Your task to perform on an android device: toggle improve location accuracy Image 0: 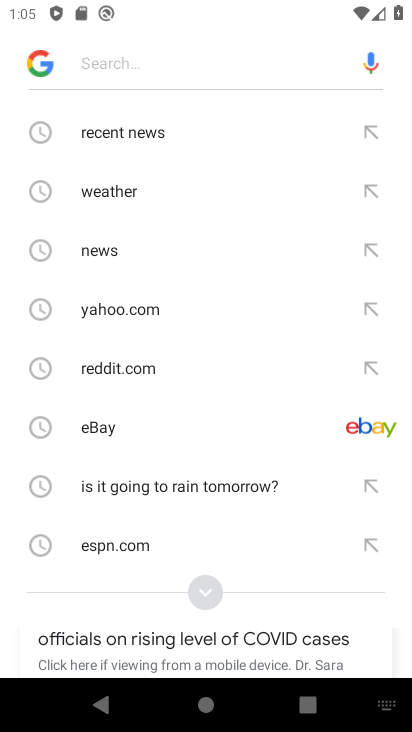
Step 0: press home button
Your task to perform on an android device: toggle improve location accuracy Image 1: 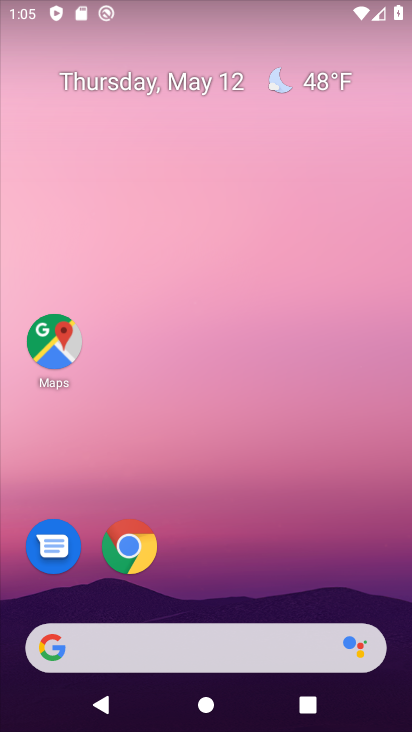
Step 1: drag from (170, 642) to (316, 67)
Your task to perform on an android device: toggle improve location accuracy Image 2: 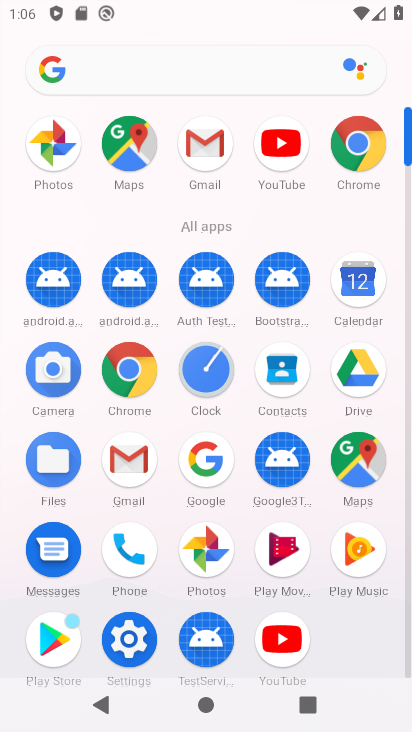
Step 2: click (135, 640)
Your task to perform on an android device: toggle improve location accuracy Image 3: 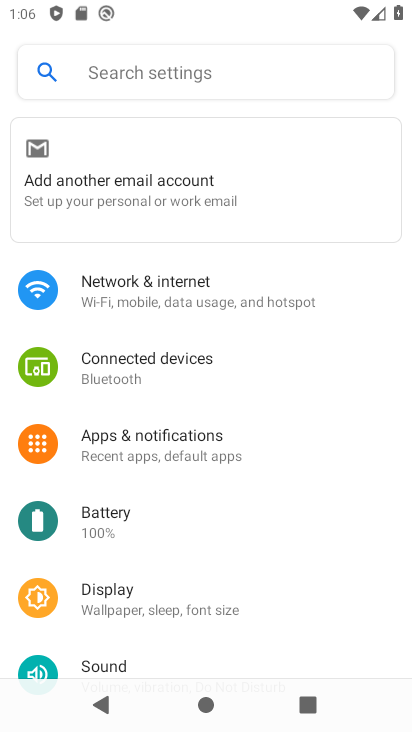
Step 3: drag from (208, 596) to (332, 215)
Your task to perform on an android device: toggle improve location accuracy Image 4: 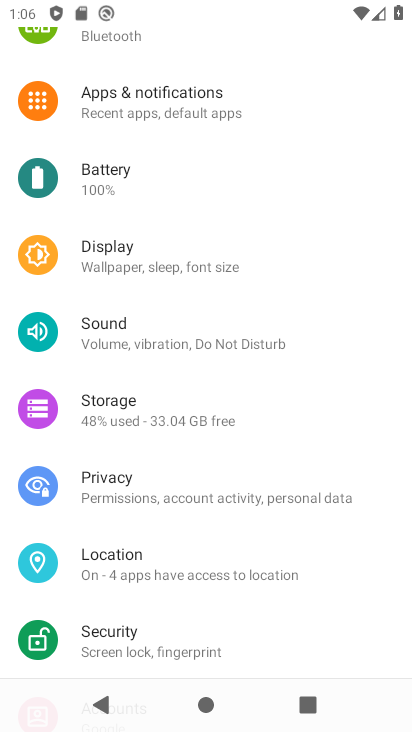
Step 4: click (173, 567)
Your task to perform on an android device: toggle improve location accuracy Image 5: 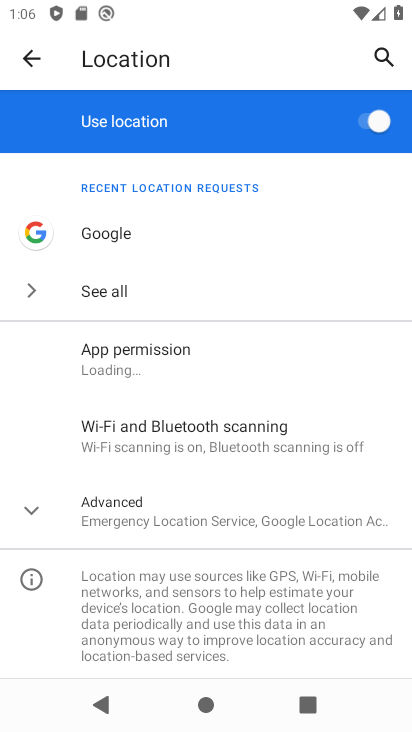
Step 5: click (121, 514)
Your task to perform on an android device: toggle improve location accuracy Image 6: 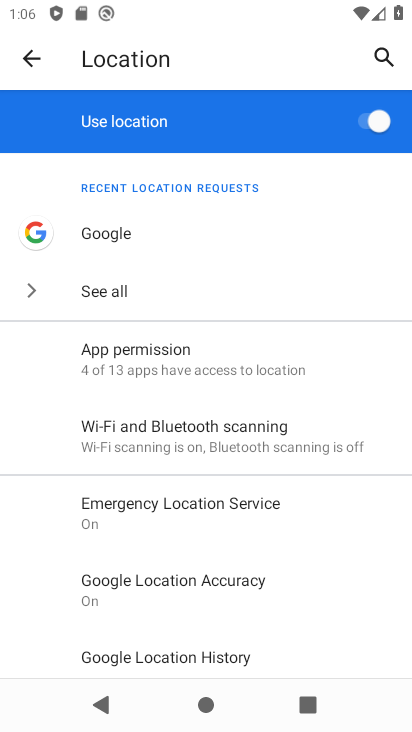
Step 6: click (222, 581)
Your task to perform on an android device: toggle improve location accuracy Image 7: 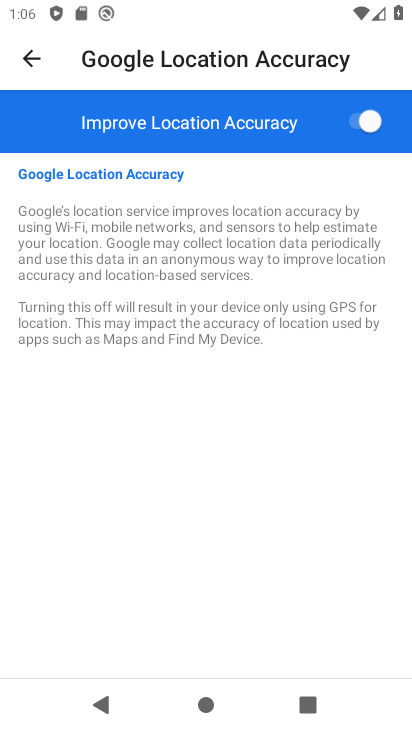
Step 7: click (358, 120)
Your task to perform on an android device: toggle improve location accuracy Image 8: 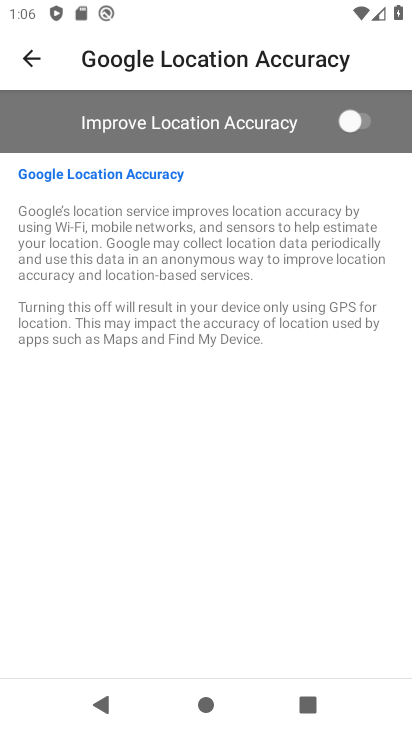
Step 8: task complete